Your task to perform on an android device: Go to Android settings Image 0: 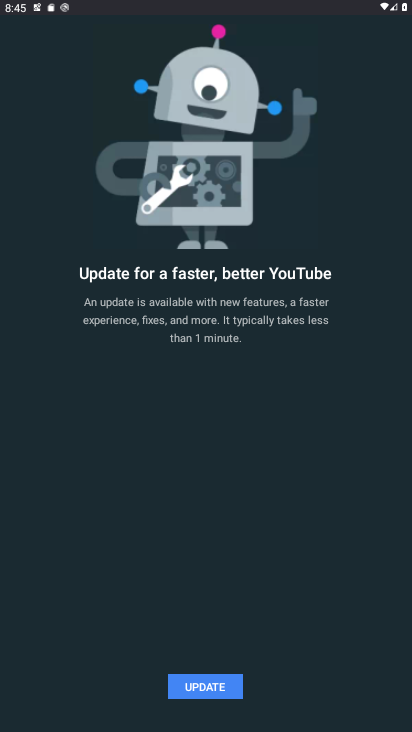
Step 0: press home button
Your task to perform on an android device: Go to Android settings Image 1: 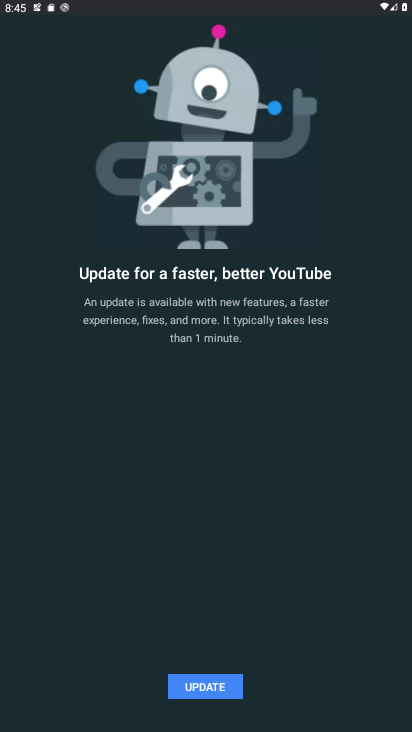
Step 1: press home button
Your task to perform on an android device: Go to Android settings Image 2: 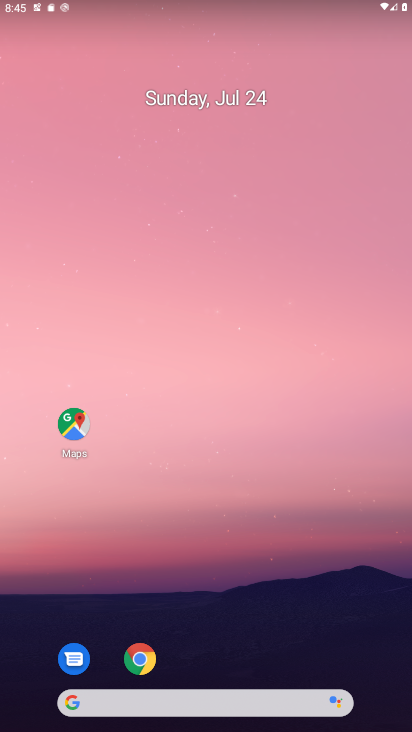
Step 2: drag from (214, 725) to (177, 225)
Your task to perform on an android device: Go to Android settings Image 3: 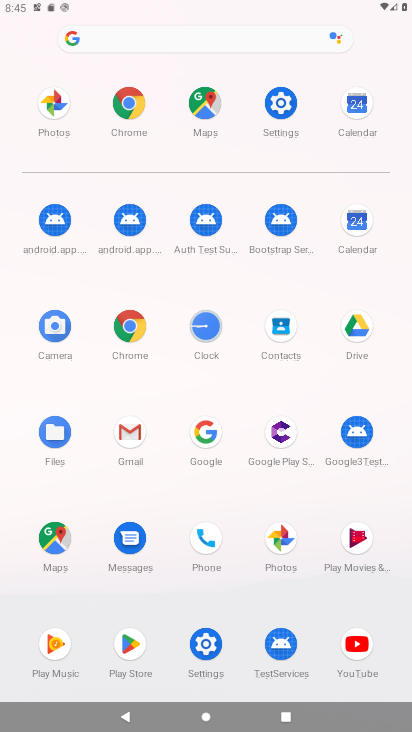
Step 3: click (286, 97)
Your task to perform on an android device: Go to Android settings Image 4: 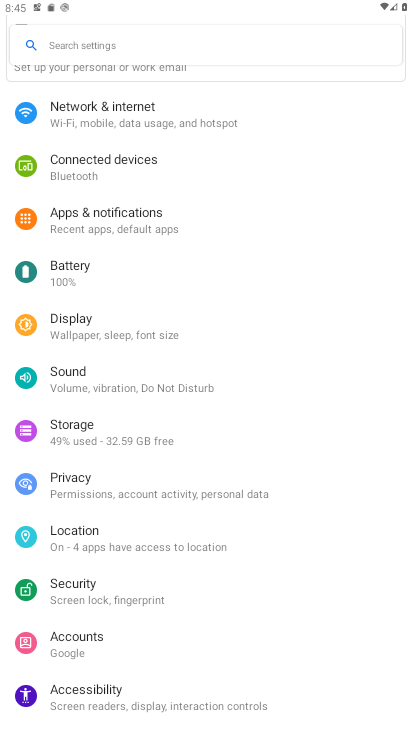
Step 4: task complete